Your task to perform on an android device: turn off location history Image 0: 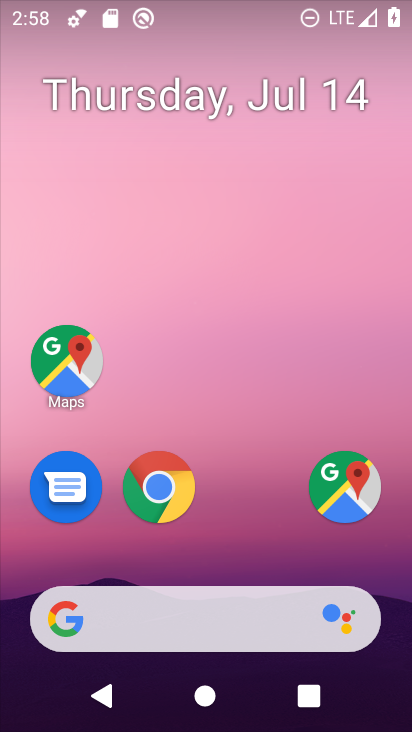
Step 0: drag from (248, 553) to (252, 134)
Your task to perform on an android device: turn off location history Image 1: 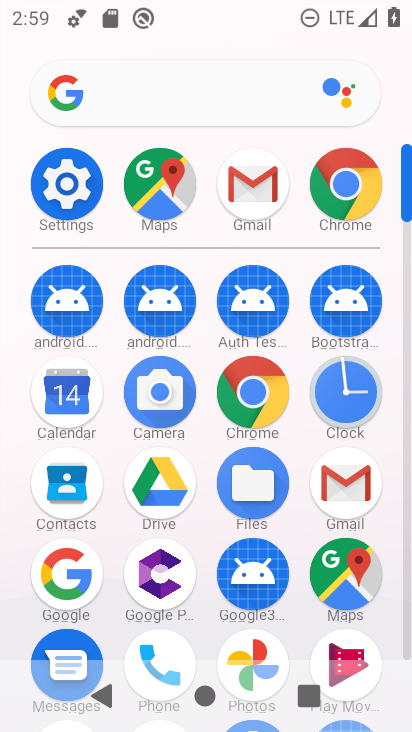
Step 1: click (70, 197)
Your task to perform on an android device: turn off location history Image 2: 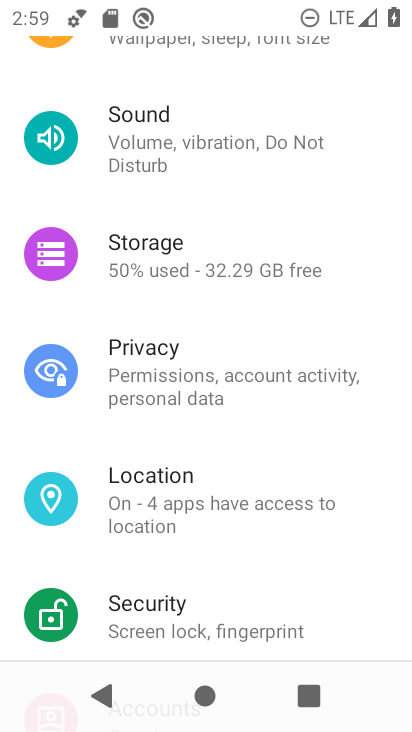
Step 2: drag from (339, 211) to (362, 342)
Your task to perform on an android device: turn off location history Image 3: 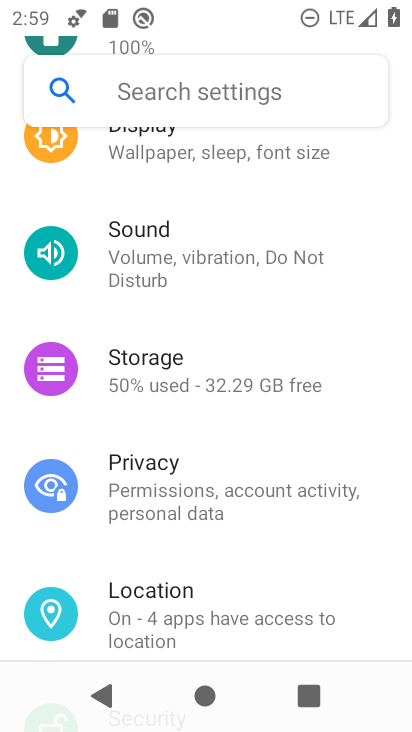
Step 3: drag from (367, 246) to (381, 376)
Your task to perform on an android device: turn off location history Image 4: 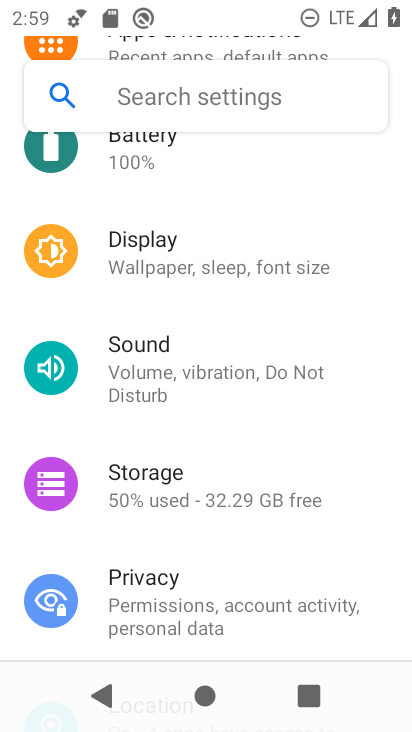
Step 4: drag from (361, 265) to (368, 381)
Your task to perform on an android device: turn off location history Image 5: 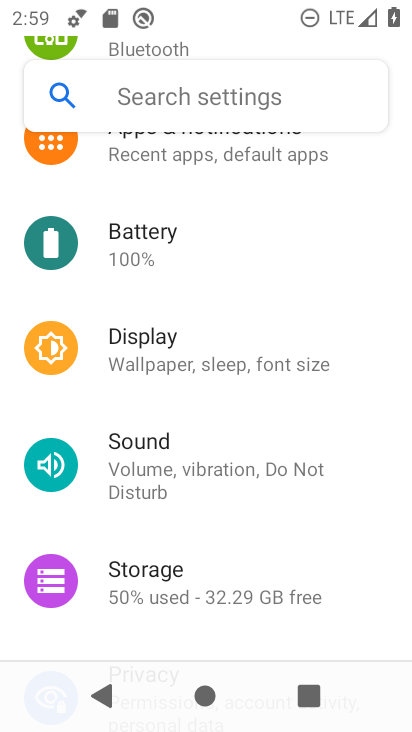
Step 5: drag from (351, 240) to (388, 419)
Your task to perform on an android device: turn off location history Image 6: 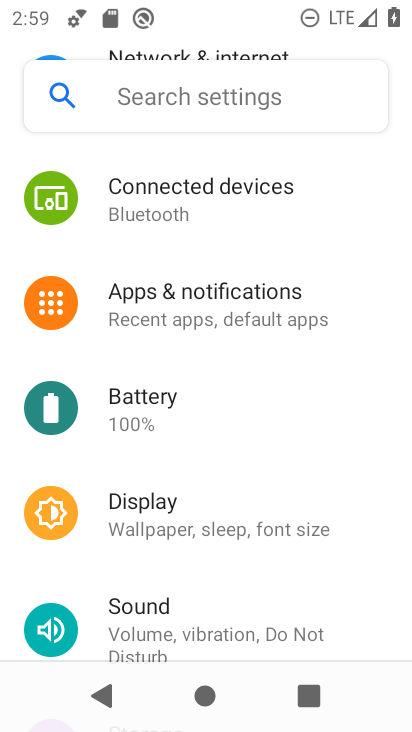
Step 6: drag from (349, 268) to (380, 464)
Your task to perform on an android device: turn off location history Image 7: 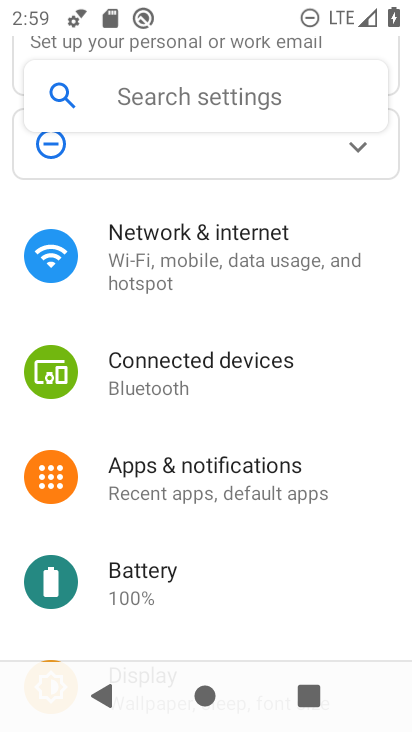
Step 7: drag from (350, 552) to (347, 439)
Your task to perform on an android device: turn off location history Image 8: 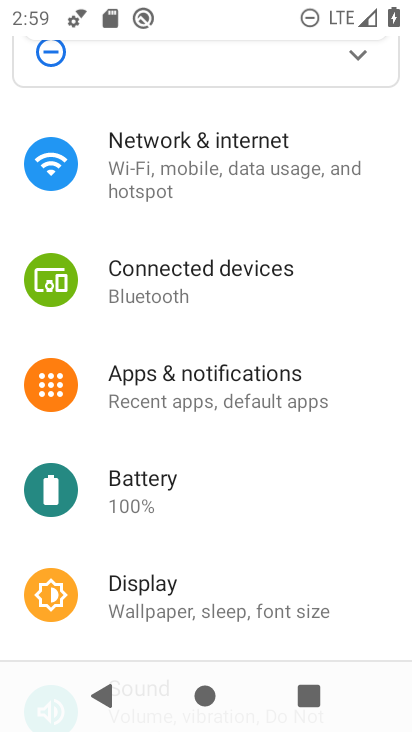
Step 8: drag from (350, 529) to (346, 433)
Your task to perform on an android device: turn off location history Image 9: 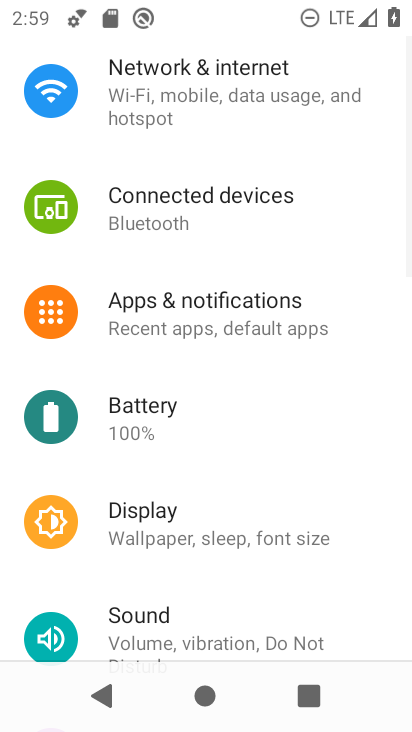
Step 9: drag from (355, 571) to (348, 455)
Your task to perform on an android device: turn off location history Image 10: 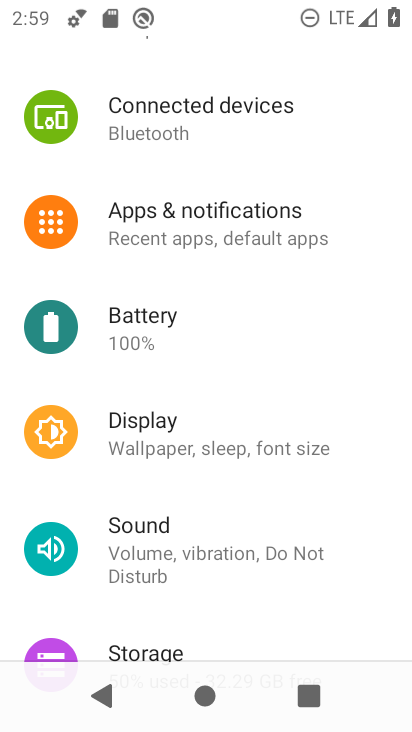
Step 10: drag from (346, 579) to (342, 449)
Your task to perform on an android device: turn off location history Image 11: 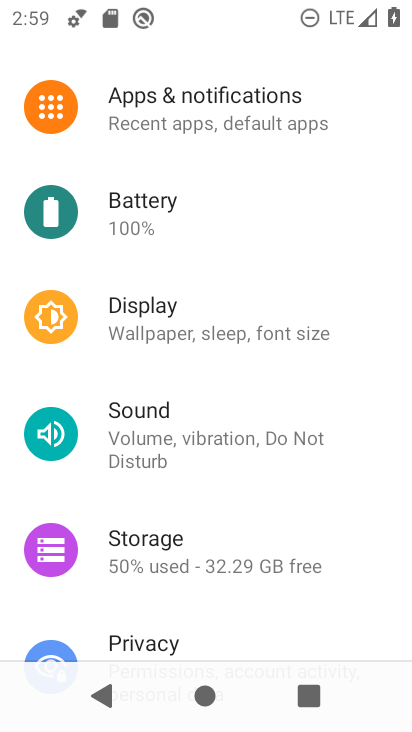
Step 11: drag from (348, 571) to (348, 462)
Your task to perform on an android device: turn off location history Image 12: 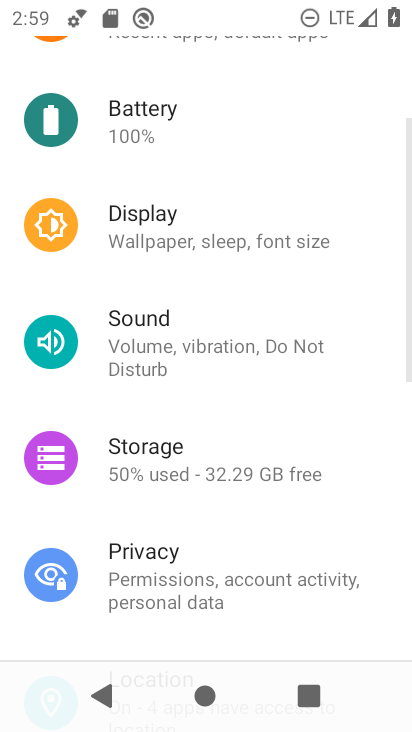
Step 12: drag from (342, 606) to (341, 426)
Your task to perform on an android device: turn off location history Image 13: 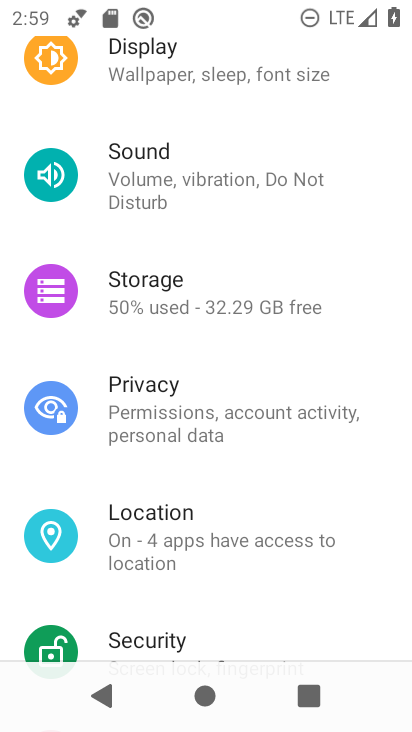
Step 13: drag from (324, 591) to (315, 426)
Your task to perform on an android device: turn off location history Image 14: 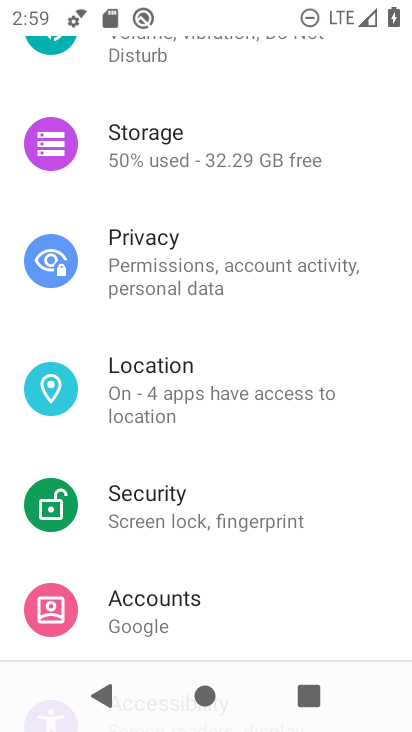
Step 14: drag from (323, 595) to (312, 279)
Your task to perform on an android device: turn off location history Image 15: 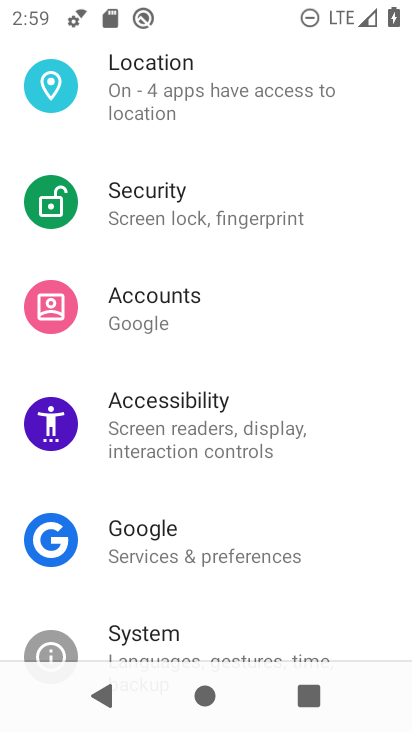
Step 15: drag from (310, 259) to (304, 448)
Your task to perform on an android device: turn off location history Image 16: 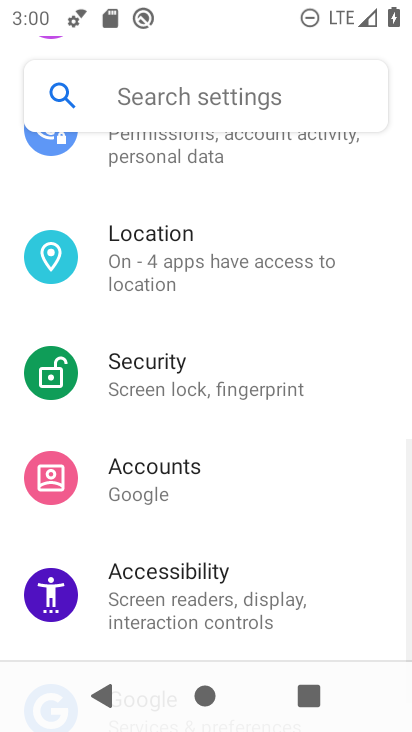
Step 16: click (246, 256)
Your task to perform on an android device: turn off location history Image 17: 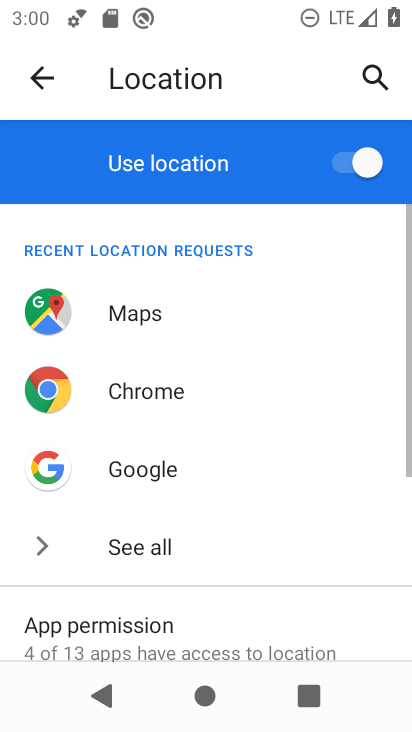
Step 17: drag from (277, 508) to (280, 389)
Your task to perform on an android device: turn off location history Image 18: 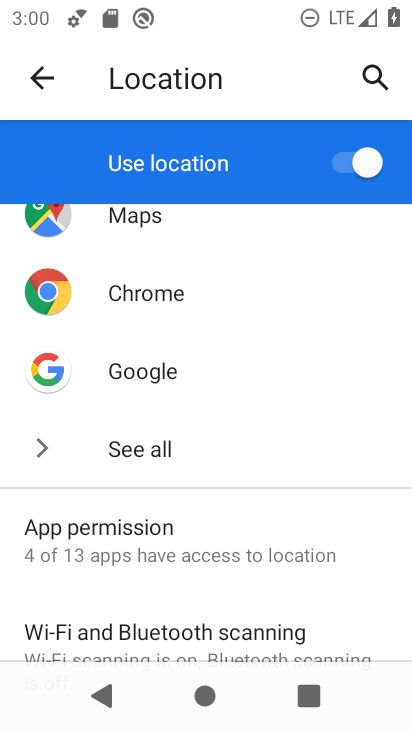
Step 18: drag from (281, 511) to (276, 295)
Your task to perform on an android device: turn off location history Image 19: 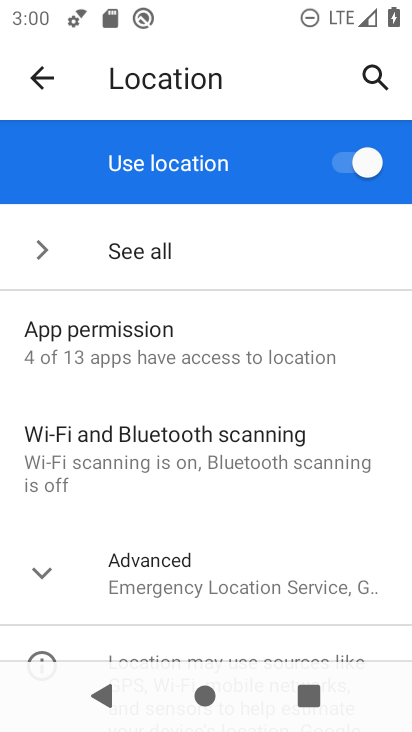
Step 19: click (254, 585)
Your task to perform on an android device: turn off location history Image 20: 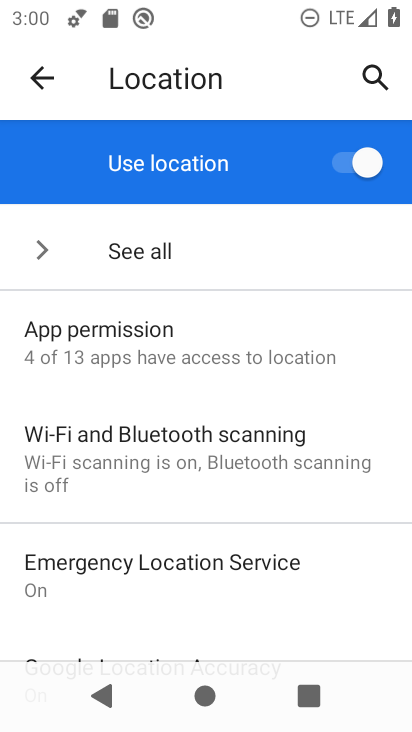
Step 20: task complete